Your task to perform on an android device: Go to location settings Image 0: 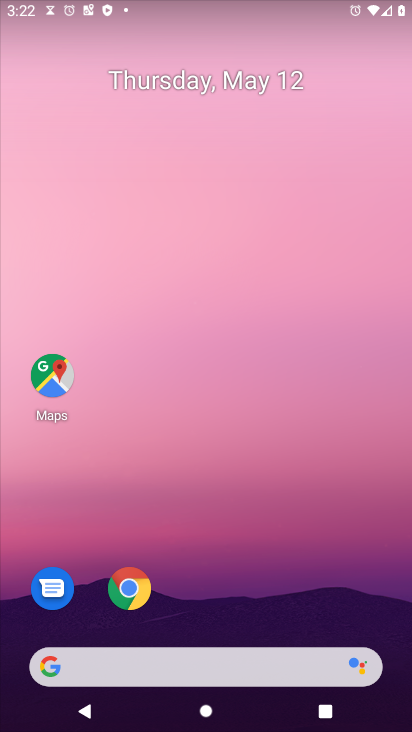
Step 0: drag from (245, 545) to (229, 0)
Your task to perform on an android device: Go to location settings Image 1: 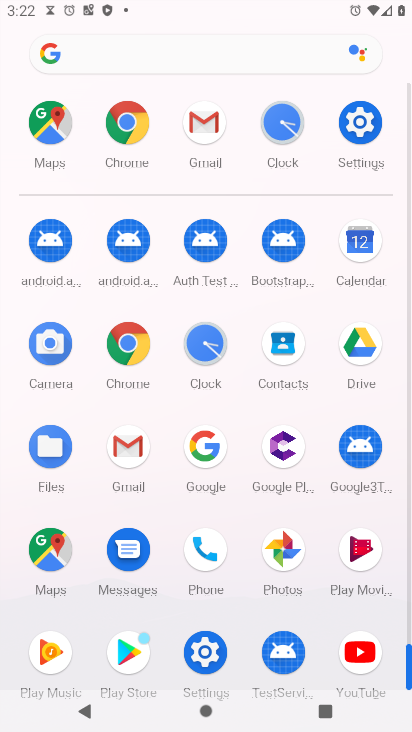
Step 1: drag from (2, 545) to (18, 382)
Your task to perform on an android device: Go to location settings Image 2: 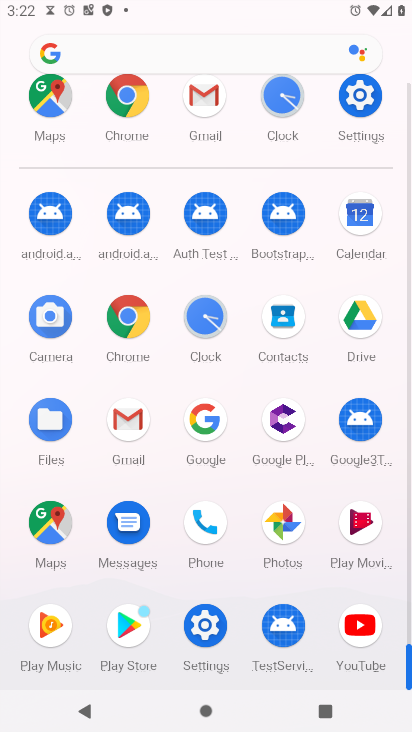
Step 2: click (203, 624)
Your task to perform on an android device: Go to location settings Image 3: 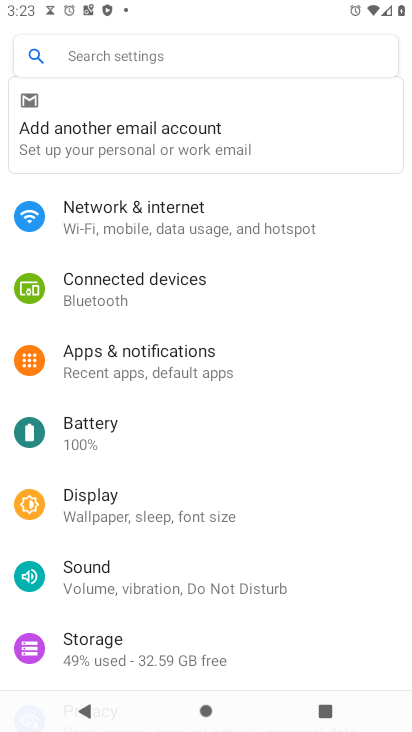
Step 3: drag from (226, 585) to (252, 305)
Your task to perform on an android device: Go to location settings Image 4: 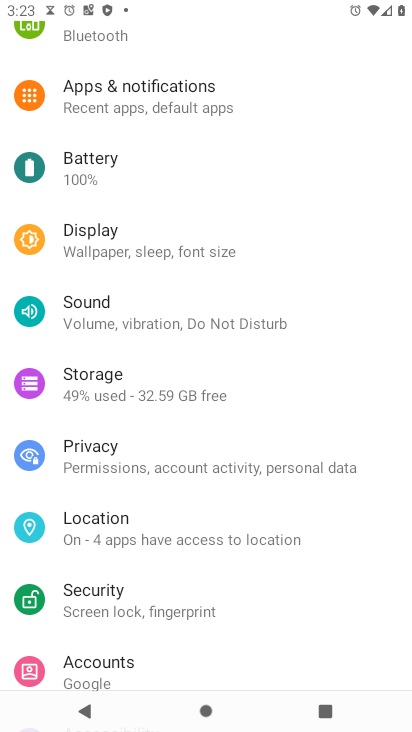
Step 4: click (147, 530)
Your task to perform on an android device: Go to location settings Image 5: 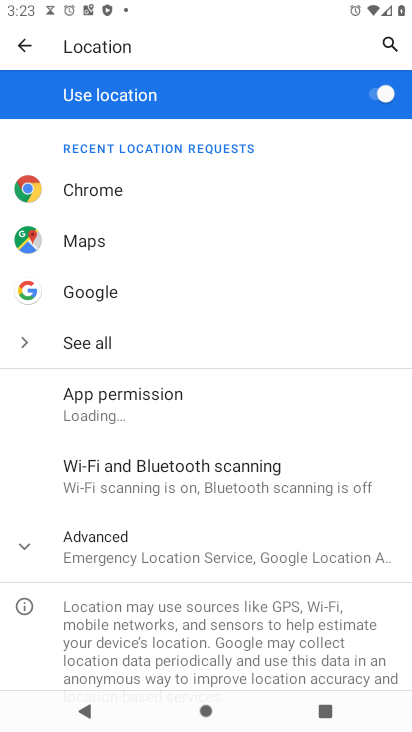
Step 5: click (19, 547)
Your task to perform on an android device: Go to location settings Image 6: 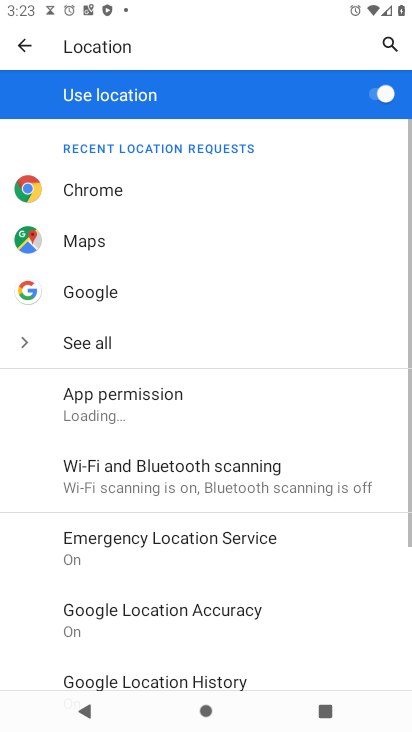
Step 6: task complete